Your task to perform on an android device: What's the weather? Image 0: 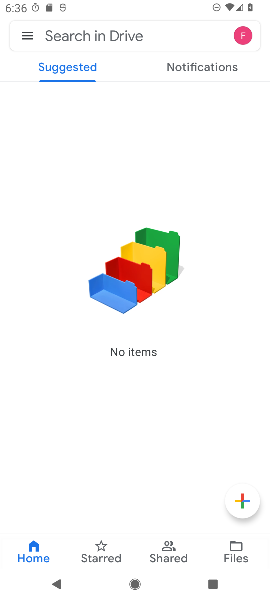
Step 0: press home button
Your task to perform on an android device: What's the weather? Image 1: 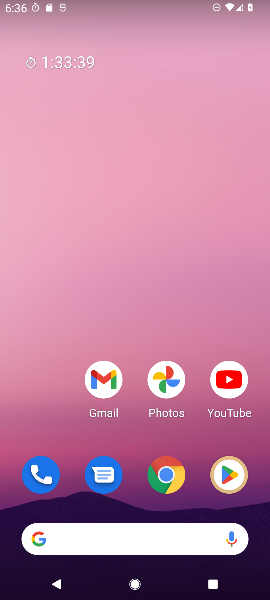
Step 1: click (152, 538)
Your task to perform on an android device: What's the weather? Image 2: 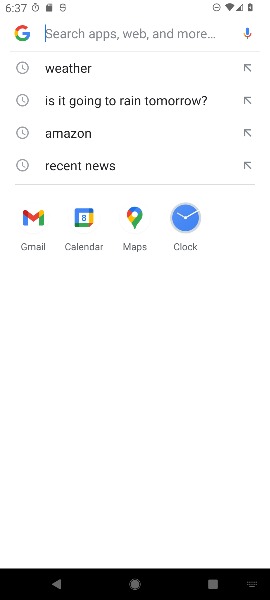
Step 2: click (98, 63)
Your task to perform on an android device: What's the weather? Image 3: 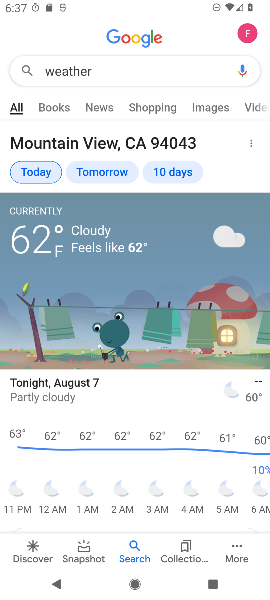
Step 3: task complete